Your task to perform on an android device: When is my next appointment? Image 0: 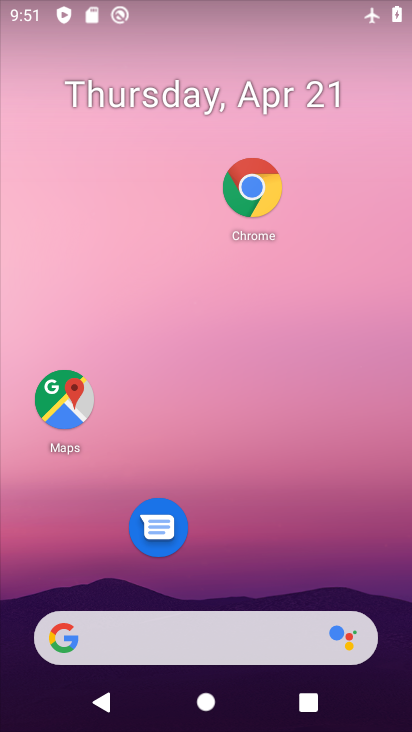
Step 0: drag from (263, 549) to (307, 159)
Your task to perform on an android device: When is my next appointment? Image 1: 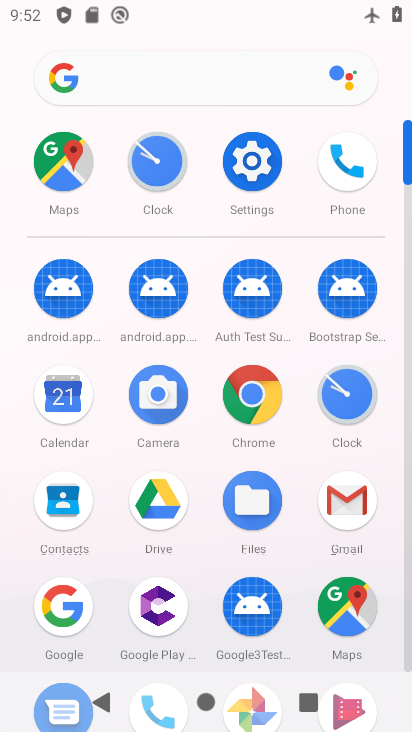
Step 1: click (69, 401)
Your task to perform on an android device: When is my next appointment? Image 2: 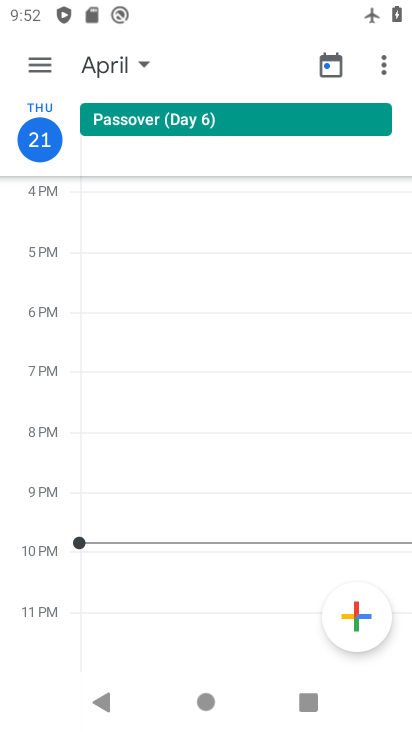
Step 2: click (137, 64)
Your task to perform on an android device: When is my next appointment? Image 3: 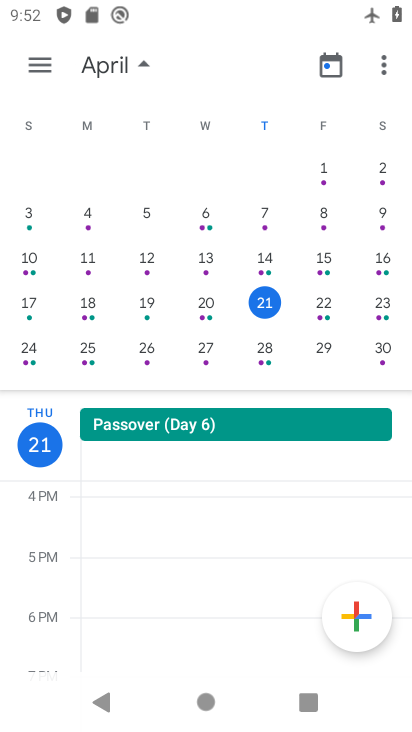
Step 3: task complete